Your task to perform on an android device: see sites visited before in the chrome app Image 0: 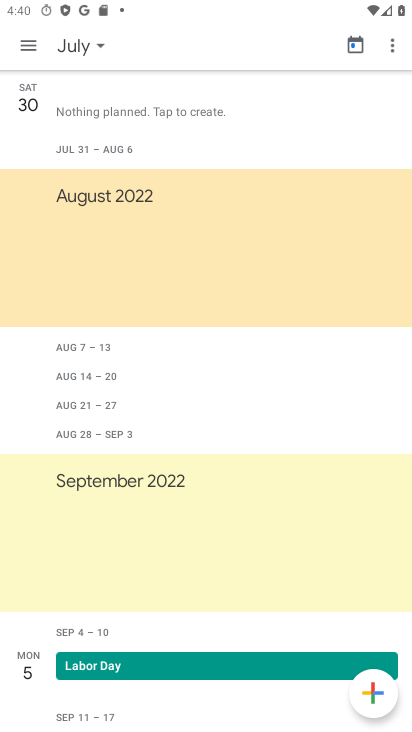
Step 0: press home button
Your task to perform on an android device: see sites visited before in the chrome app Image 1: 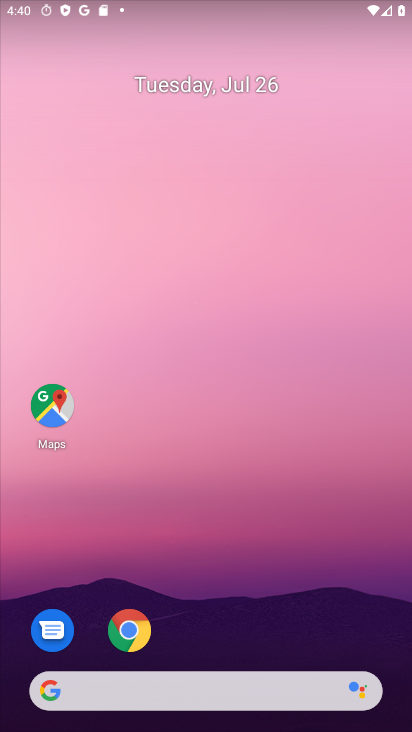
Step 1: drag from (308, 598) to (270, 50)
Your task to perform on an android device: see sites visited before in the chrome app Image 2: 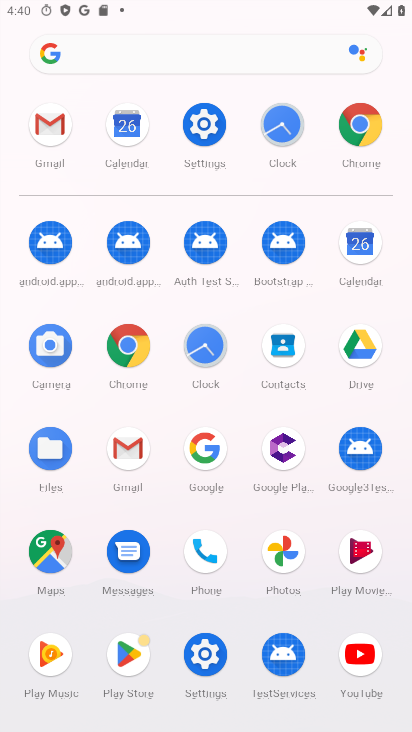
Step 2: click (363, 130)
Your task to perform on an android device: see sites visited before in the chrome app Image 3: 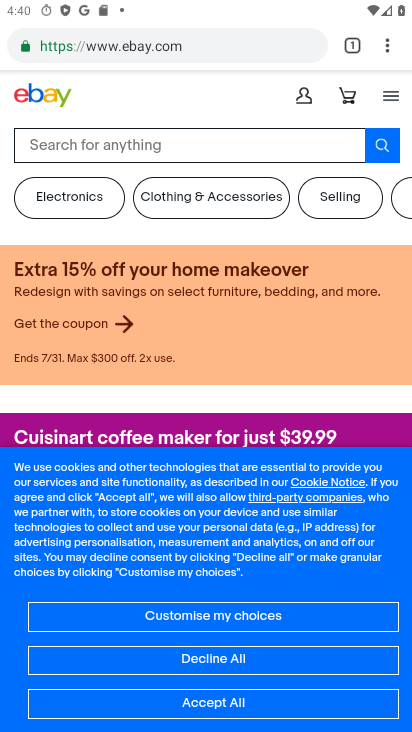
Step 3: task complete